Your task to perform on an android device: turn off smart reply in the gmail app Image 0: 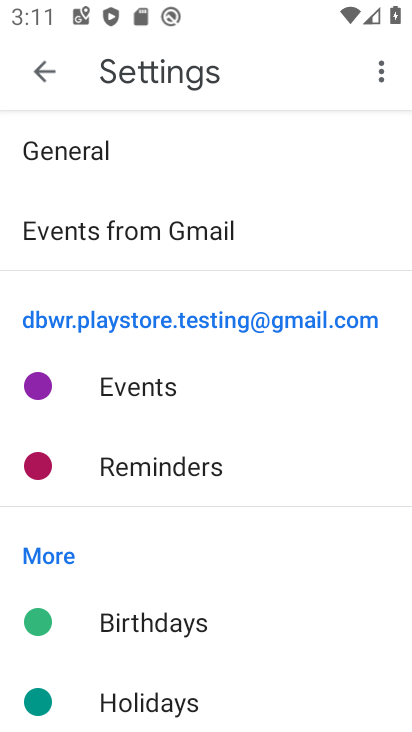
Step 0: press home button
Your task to perform on an android device: turn off smart reply in the gmail app Image 1: 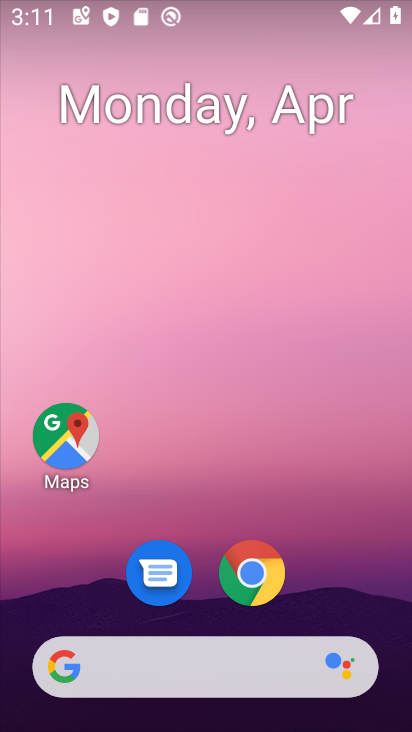
Step 1: drag from (346, 573) to (342, 101)
Your task to perform on an android device: turn off smart reply in the gmail app Image 2: 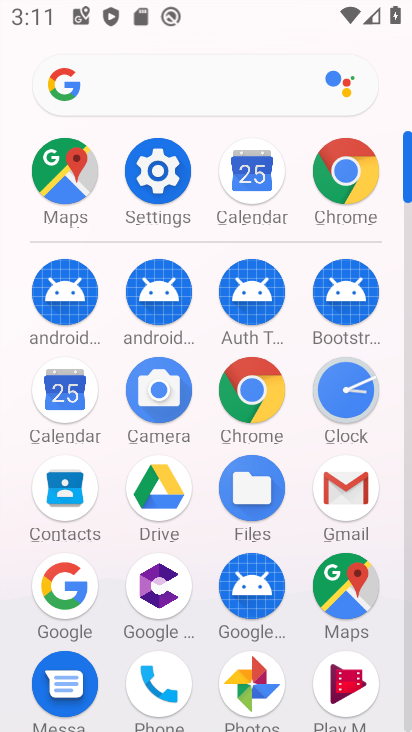
Step 2: click (351, 490)
Your task to perform on an android device: turn off smart reply in the gmail app Image 3: 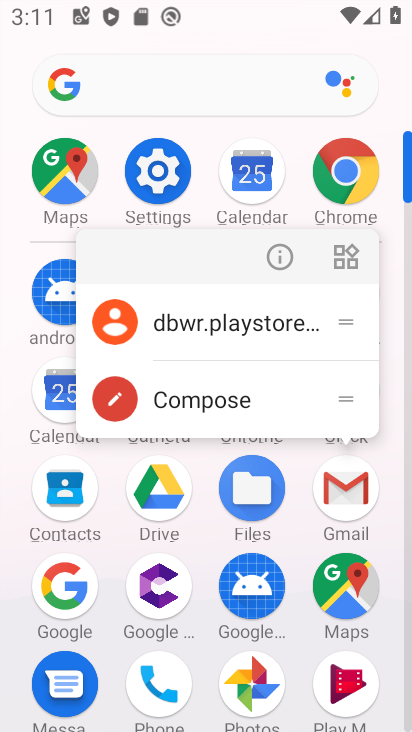
Step 3: click (328, 474)
Your task to perform on an android device: turn off smart reply in the gmail app Image 4: 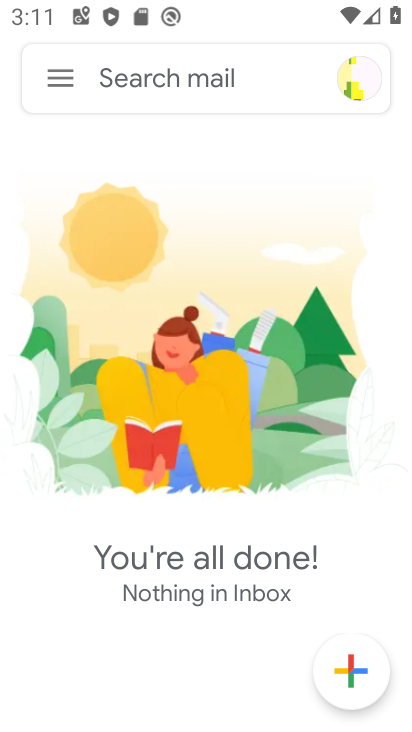
Step 4: click (74, 78)
Your task to perform on an android device: turn off smart reply in the gmail app Image 5: 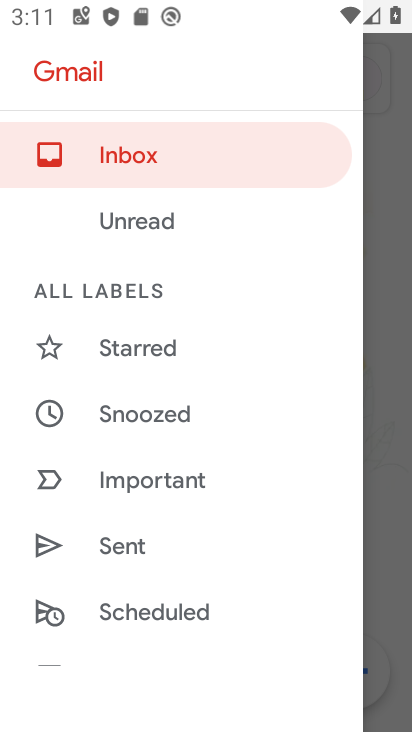
Step 5: drag from (275, 583) to (273, 390)
Your task to perform on an android device: turn off smart reply in the gmail app Image 6: 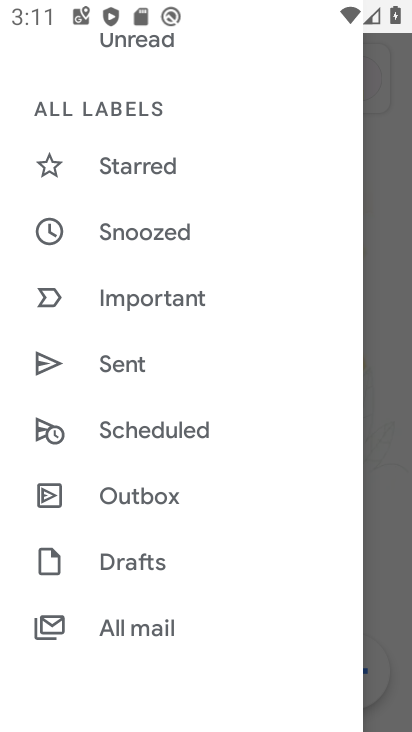
Step 6: drag from (296, 574) to (290, 356)
Your task to perform on an android device: turn off smart reply in the gmail app Image 7: 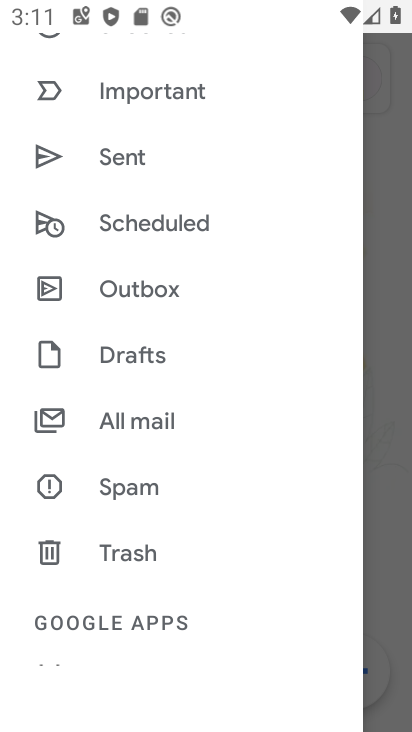
Step 7: drag from (290, 582) to (278, 422)
Your task to perform on an android device: turn off smart reply in the gmail app Image 8: 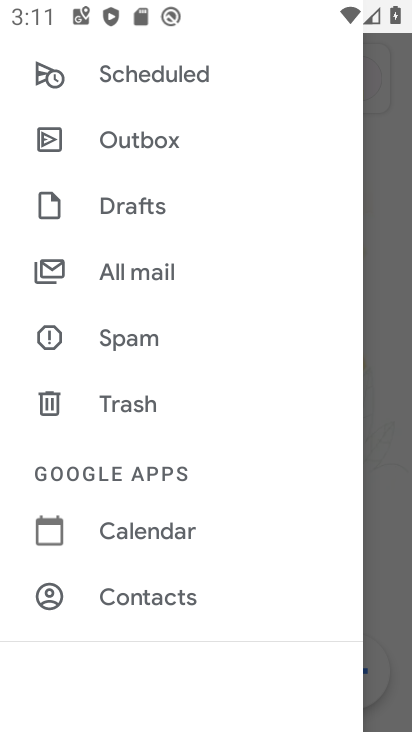
Step 8: drag from (310, 619) to (309, 403)
Your task to perform on an android device: turn off smart reply in the gmail app Image 9: 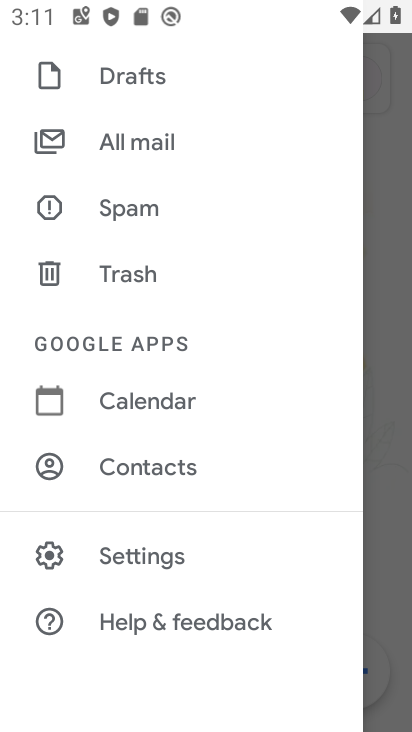
Step 9: click (204, 556)
Your task to perform on an android device: turn off smart reply in the gmail app Image 10: 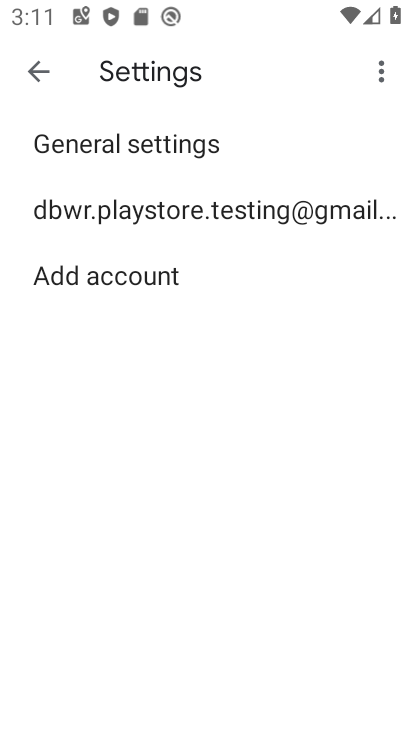
Step 10: click (284, 212)
Your task to perform on an android device: turn off smart reply in the gmail app Image 11: 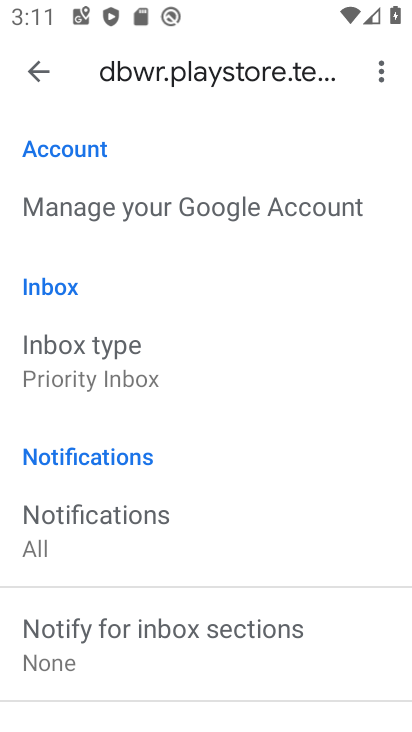
Step 11: drag from (285, 516) to (274, 381)
Your task to perform on an android device: turn off smart reply in the gmail app Image 12: 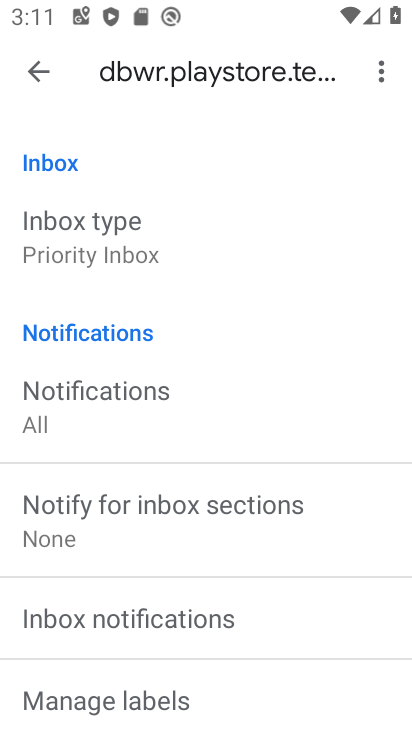
Step 12: drag from (314, 614) to (326, 414)
Your task to perform on an android device: turn off smart reply in the gmail app Image 13: 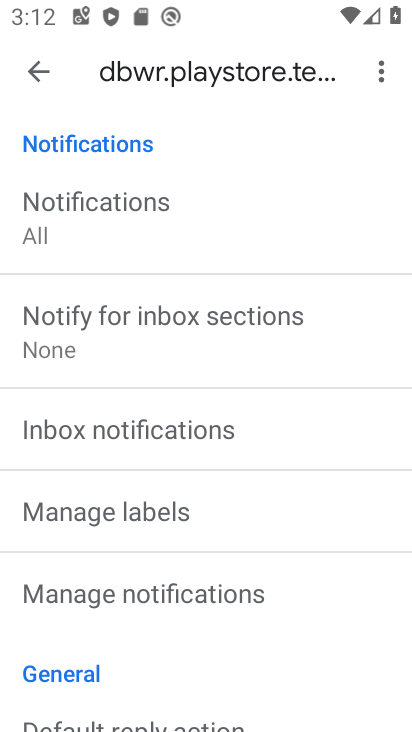
Step 13: drag from (311, 608) to (317, 420)
Your task to perform on an android device: turn off smart reply in the gmail app Image 14: 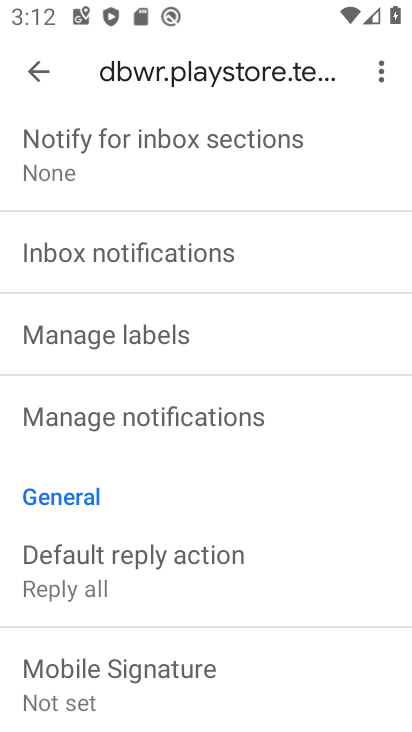
Step 14: drag from (300, 656) to (306, 443)
Your task to perform on an android device: turn off smart reply in the gmail app Image 15: 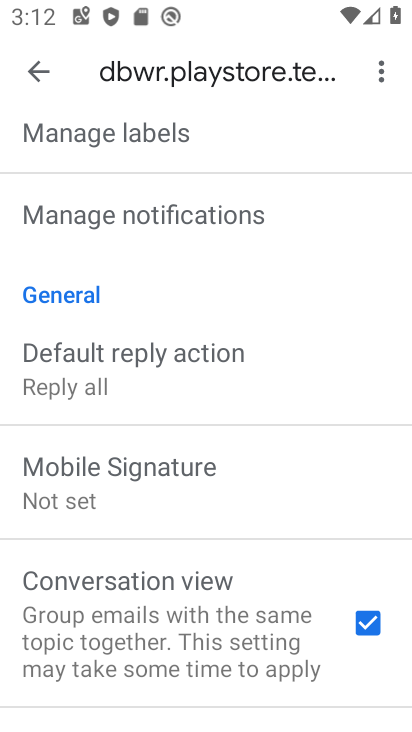
Step 15: drag from (305, 678) to (302, 478)
Your task to perform on an android device: turn off smart reply in the gmail app Image 16: 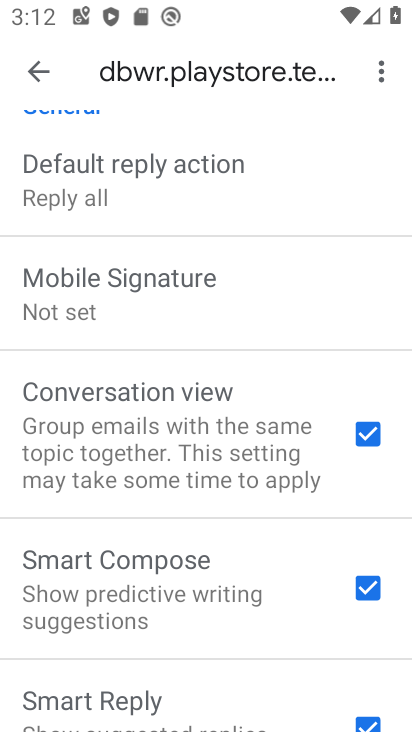
Step 16: drag from (270, 676) to (274, 505)
Your task to perform on an android device: turn off smart reply in the gmail app Image 17: 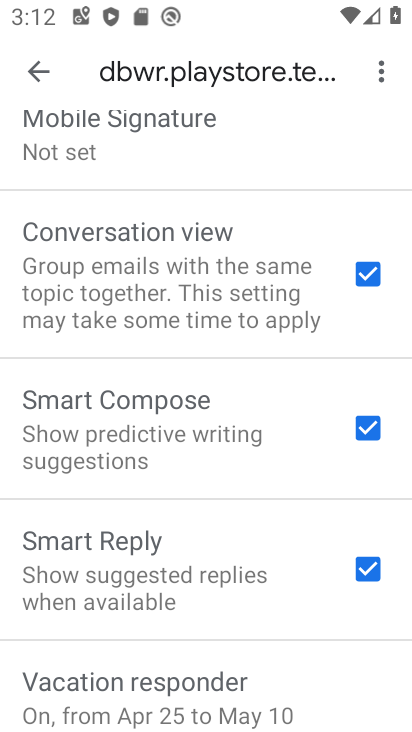
Step 17: drag from (276, 618) to (287, 525)
Your task to perform on an android device: turn off smart reply in the gmail app Image 18: 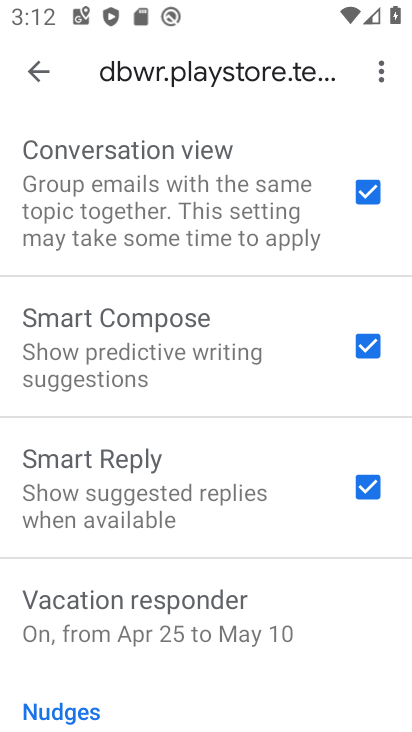
Step 18: click (363, 483)
Your task to perform on an android device: turn off smart reply in the gmail app Image 19: 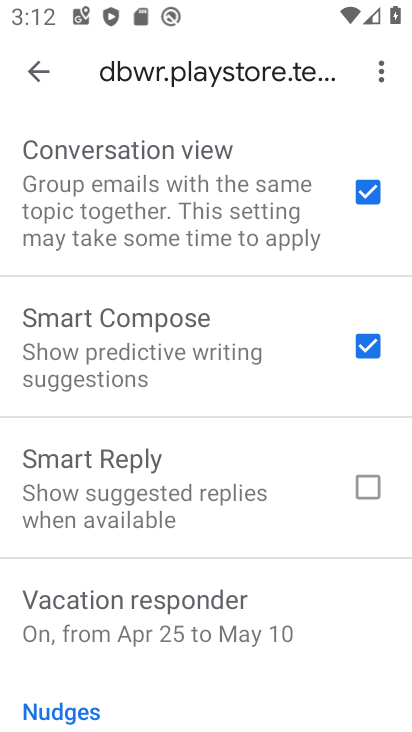
Step 19: task complete